Your task to perform on an android device: create a new album in the google photos Image 0: 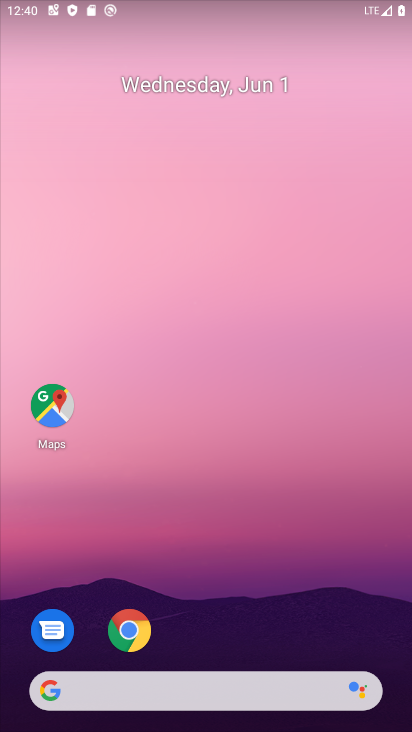
Step 0: drag from (252, 500) to (247, 109)
Your task to perform on an android device: create a new album in the google photos Image 1: 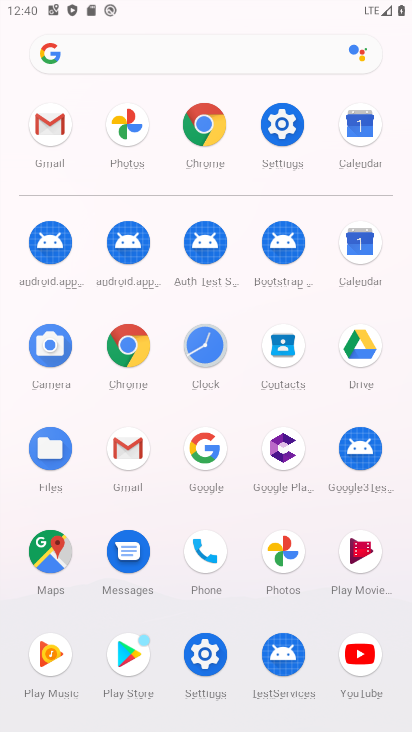
Step 1: click (127, 127)
Your task to perform on an android device: create a new album in the google photos Image 2: 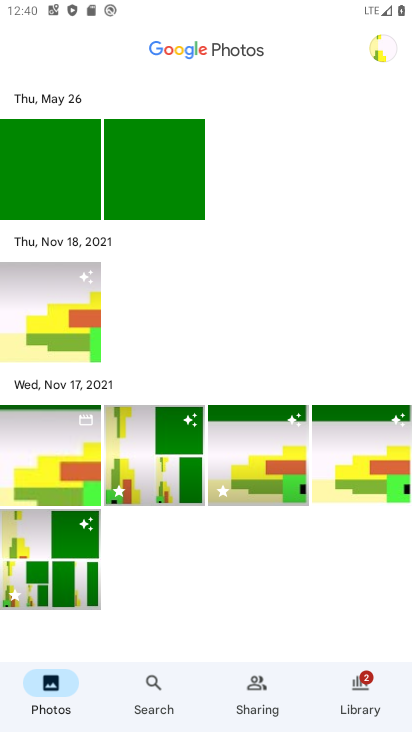
Step 2: click (43, 164)
Your task to perform on an android device: create a new album in the google photos Image 3: 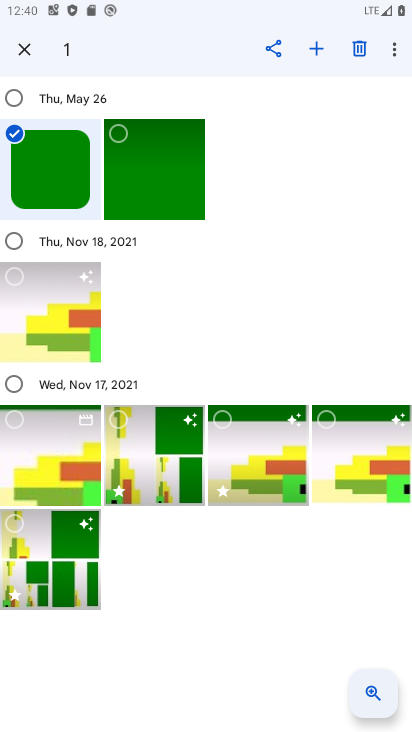
Step 3: click (185, 185)
Your task to perform on an android device: create a new album in the google photos Image 4: 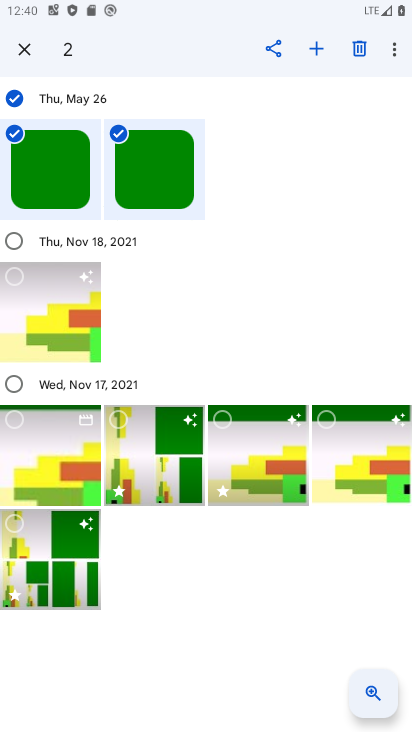
Step 4: click (319, 47)
Your task to perform on an android device: create a new album in the google photos Image 5: 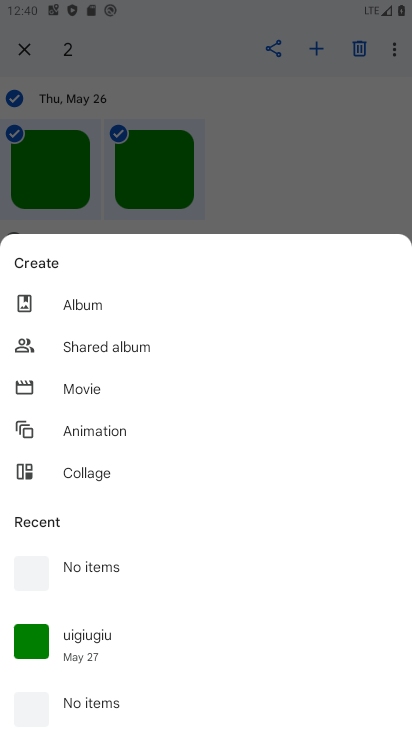
Step 5: click (129, 298)
Your task to perform on an android device: create a new album in the google photos Image 6: 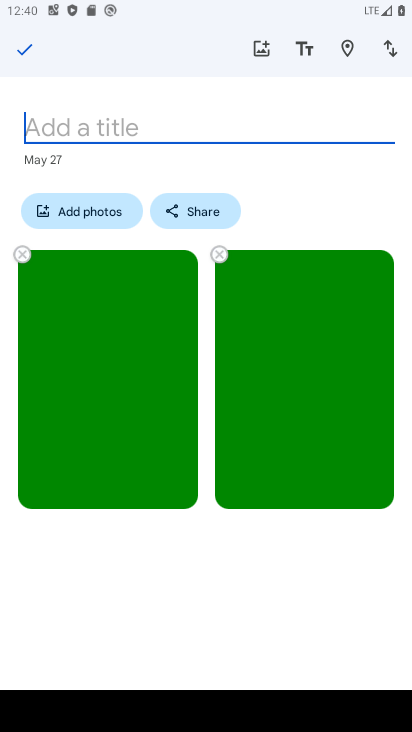
Step 6: type "fhghjhghgh"
Your task to perform on an android device: create a new album in the google photos Image 7: 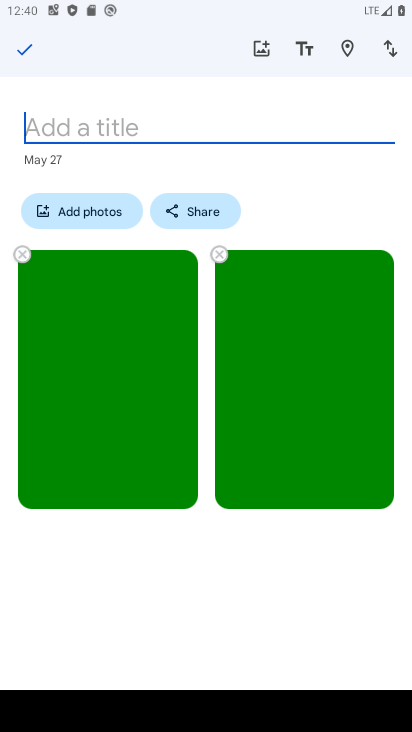
Step 7: click (147, 125)
Your task to perform on an android device: create a new album in the google photos Image 8: 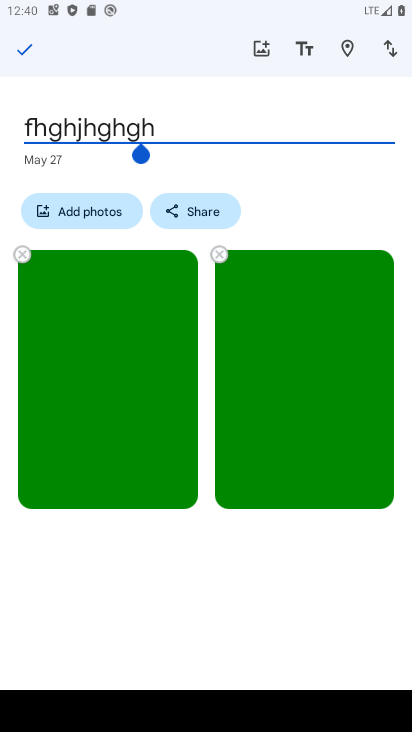
Step 8: click (30, 47)
Your task to perform on an android device: create a new album in the google photos Image 9: 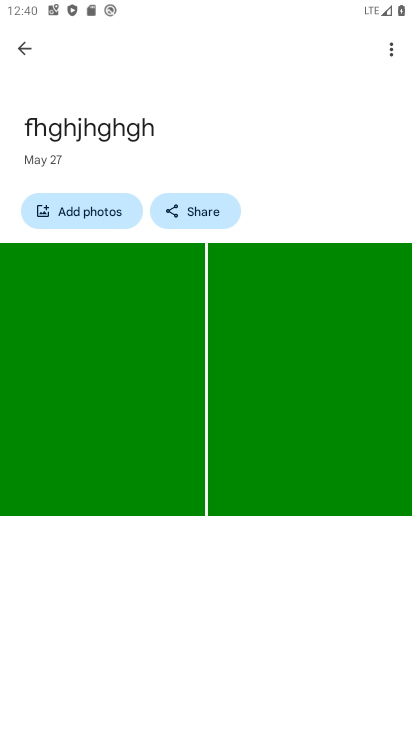
Step 9: task complete